Your task to perform on an android device: clear all cookies in the chrome app Image 0: 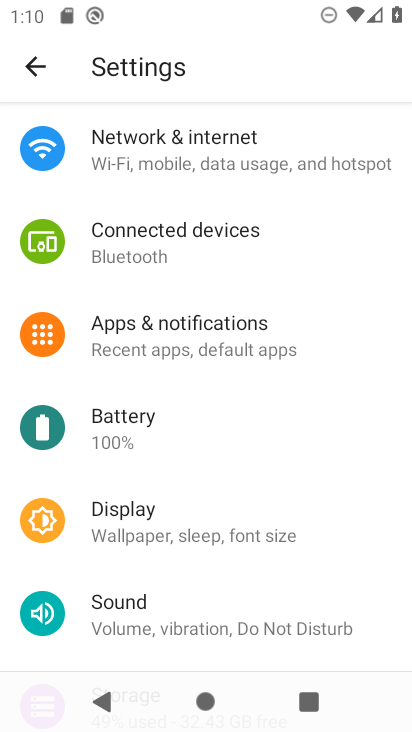
Step 0: press home button
Your task to perform on an android device: clear all cookies in the chrome app Image 1: 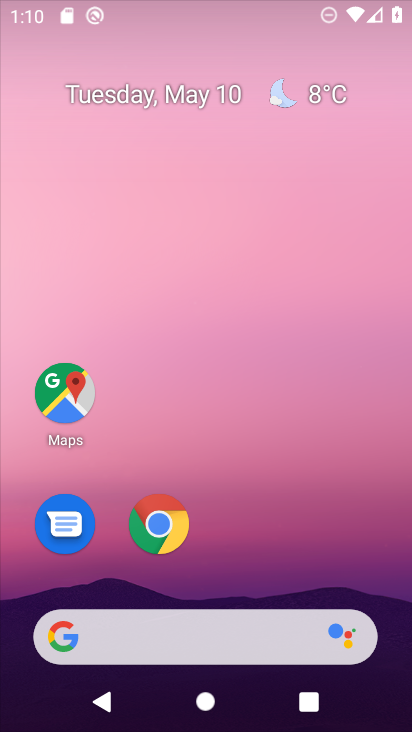
Step 1: drag from (249, 480) to (272, 42)
Your task to perform on an android device: clear all cookies in the chrome app Image 2: 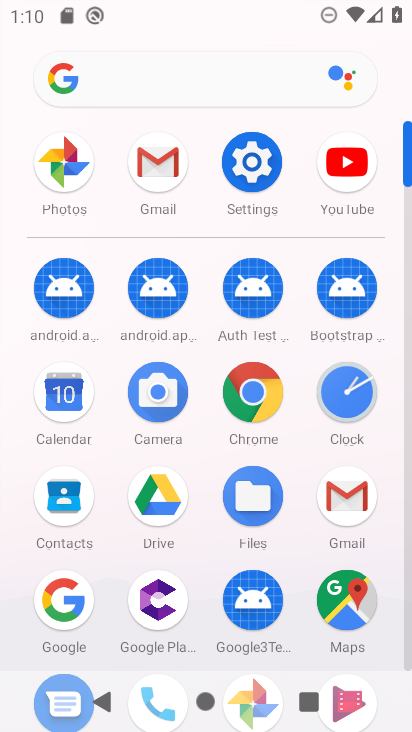
Step 2: click (253, 390)
Your task to perform on an android device: clear all cookies in the chrome app Image 3: 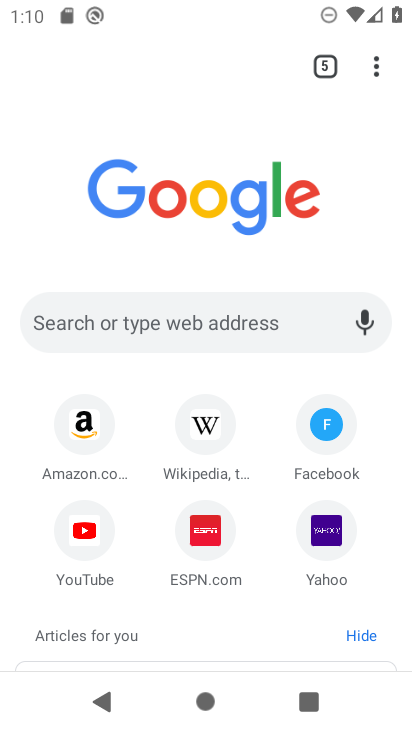
Step 3: click (377, 58)
Your task to perform on an android device: clear all cookies in the chrome app Image 4: 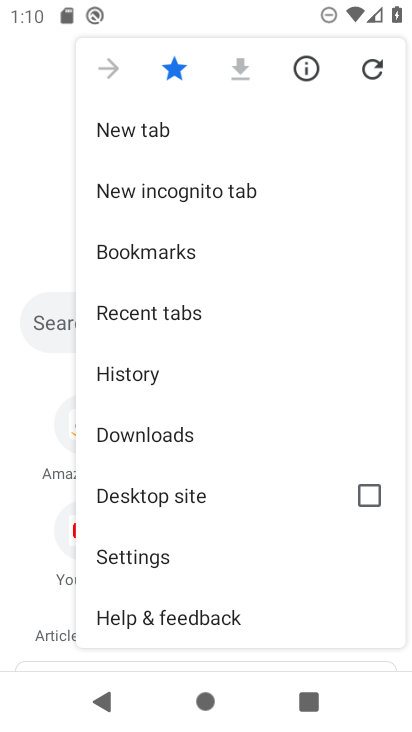
Step 4: click (253, 557)
Your task to perform on an android device: clear all cookies in the chrome app Image 5: 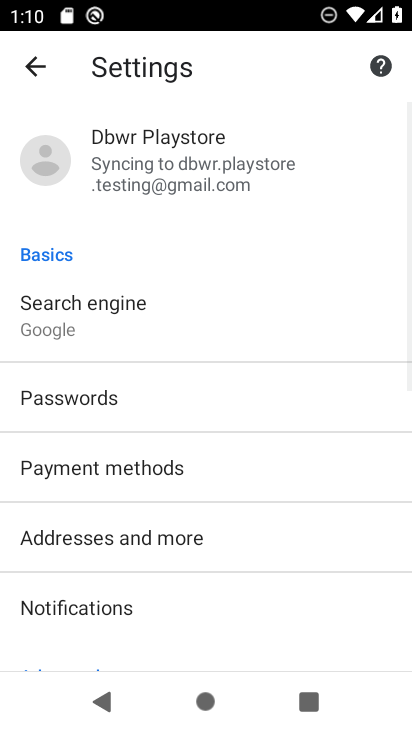
Step 5: drag from (190, 538) to (190, 259)
Your task to perform on an android device: clear all cookies in the chrome app Image 6: 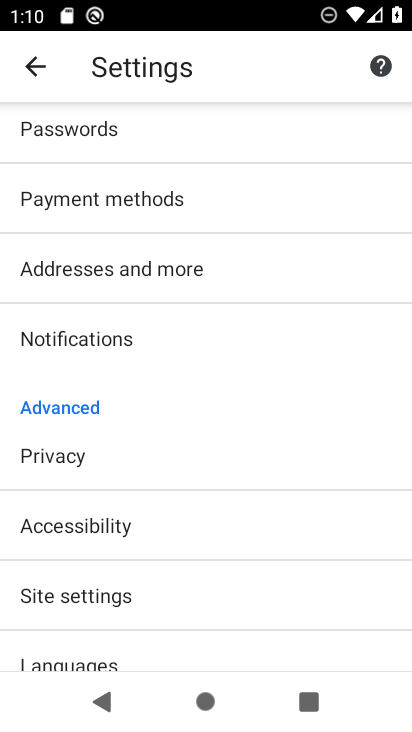
Step 6: click (122, 444)
Your task to perform on an android device: clear all cookies in the chrome app Image 7: 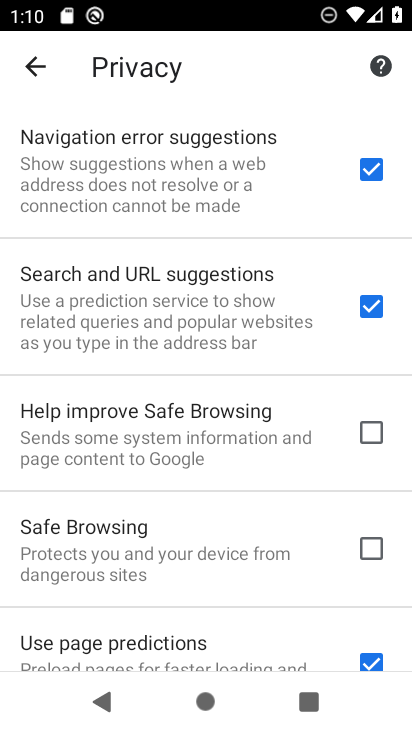
Step 7: drag from (247, 628) to (277, 98)
Your task to perform on an android device: clear all cookies in the chrome app Image 8: 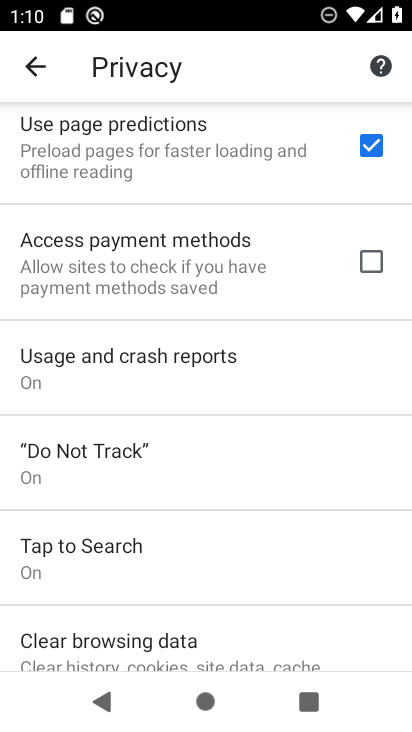
Step 8: drag from (175, 641) to (156, 446)
Your task to perform on an android device: clear all cookies in the chrome app Image 9: 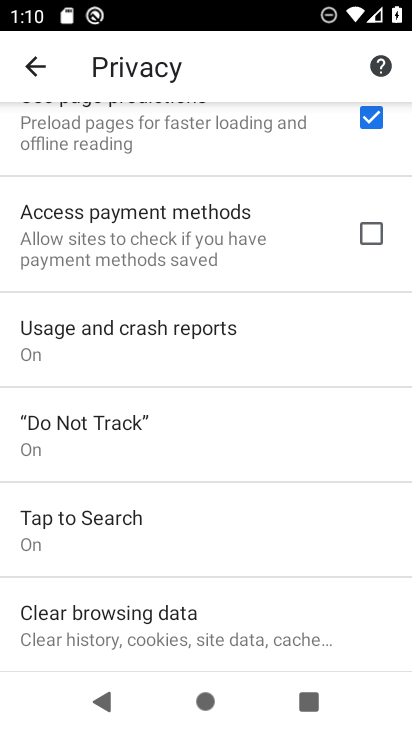
Step 9: click (154, 623)
Your task to perform on an android device: clear all cookies in the chrome app Image 10: 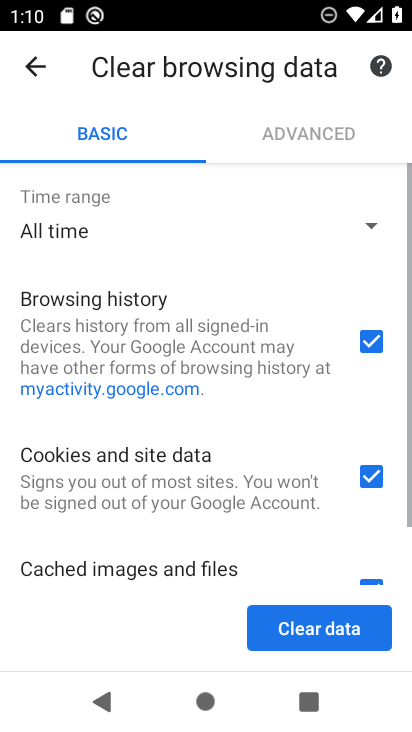
Step 10: click (365, 331)
Your task to perform on an android device: clear all cookies in the chrome app Image 11: 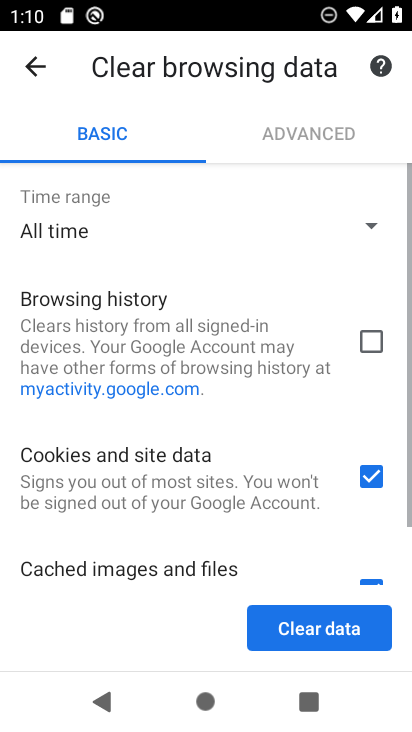
Step 11: drag from (311, 518) to (313, 361)
Your task to perform on an android device: clear all cookies in the chrome app Image 12: 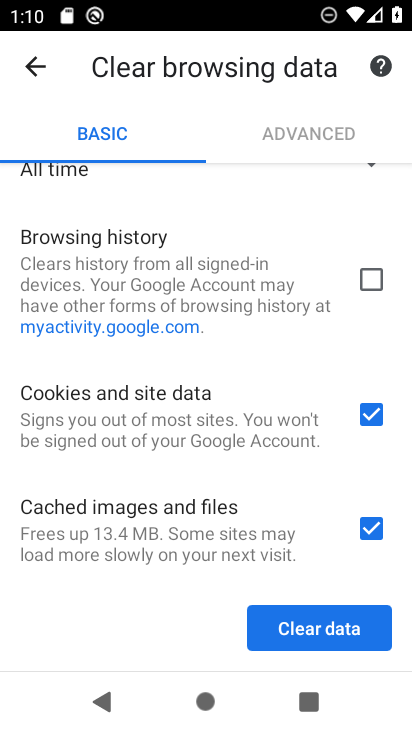
Step 12: click (365, 524)
Your task to perform on an android device: clear all cookies in the chrome app Image 13: 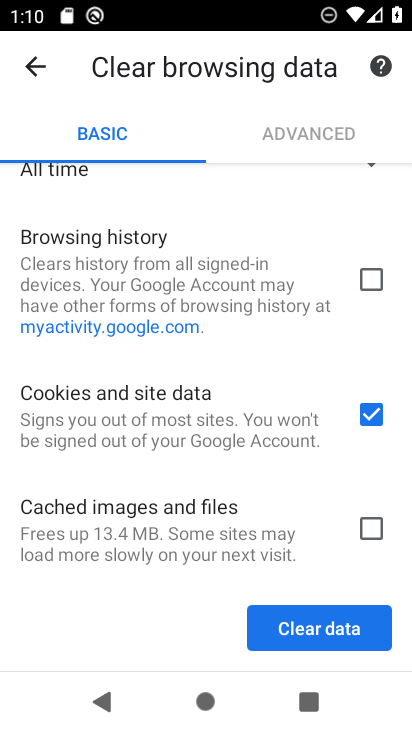
Step 13: click (374, 625)
Your task to perform on an android device: clear all cookies in the chrome app Image 14: 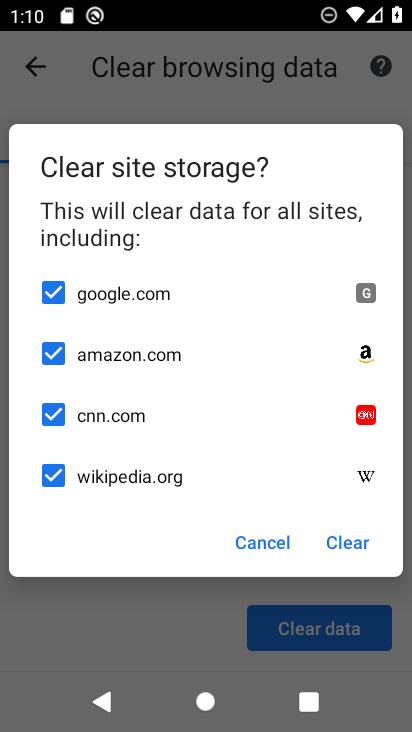
Step 14: click (356, 533)
Your task to perform on an android device: clear all cookies in the chrome app Image 15: 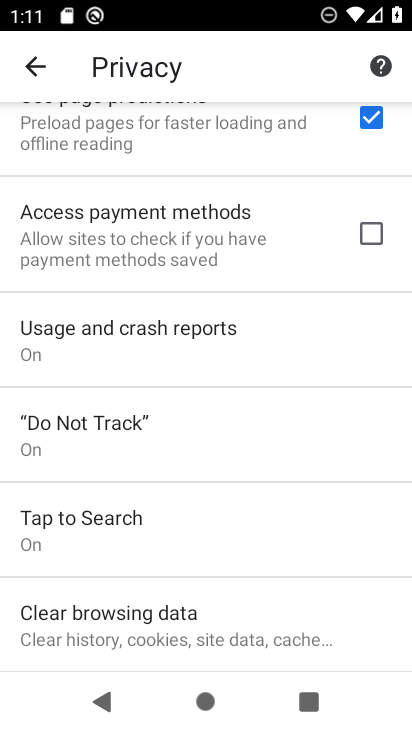
Step 15: task complete